Your task to perform on an android device: turn on translation in the chrome app Image 0: 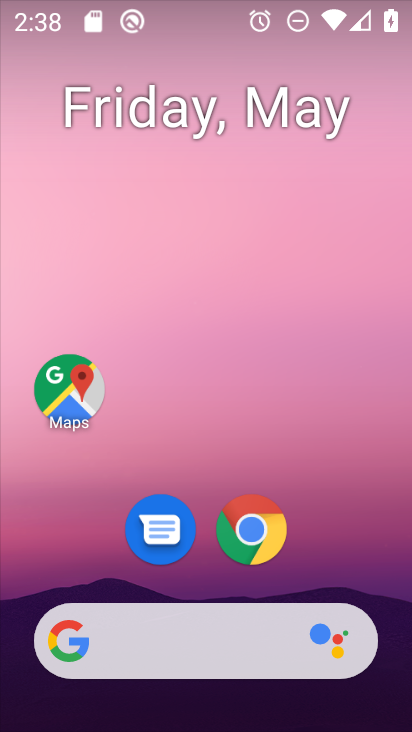
Step 0: click (245, 526)
Your task to perform on an android device: turn on translation in the chrome app Image 1: 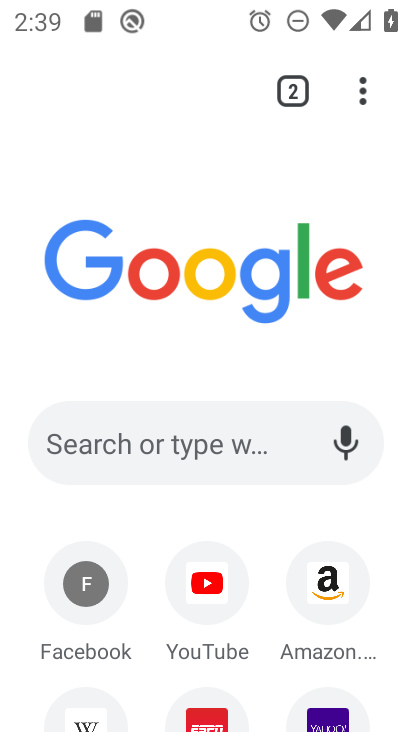
Step 1: click (362, 90)
Your task to perform on an android device: turn on translation in the chrome app Image 2: 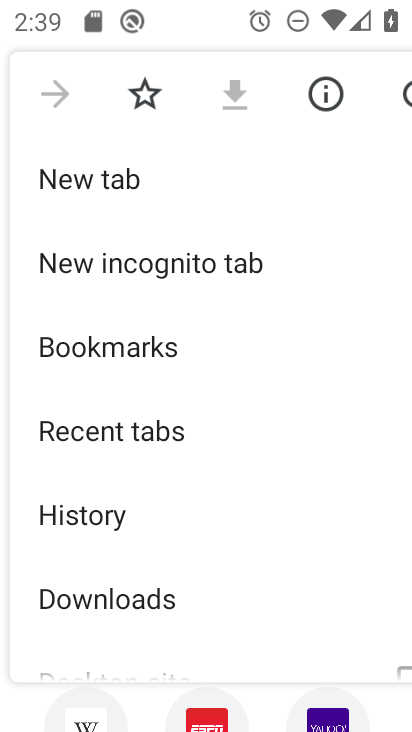
Step 2: drag from (248, 626) to (252, 407)
Your task to perform on an android device: turn on translation in the chrome app Image 3: 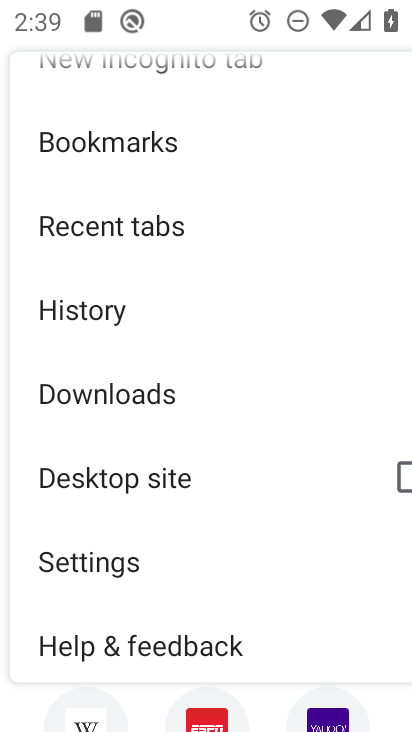
Step 3: click (100, 565)
Your task to perform on an android device: turn on translation in the chrome app Image 4: 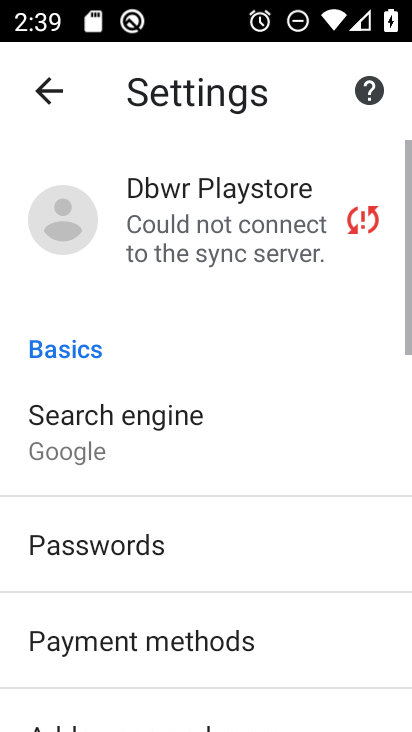
Step 4: drag from (277, 656) to (263, 349)
Your task to perform on an android device: turn on translation in the chrome app Image 5: 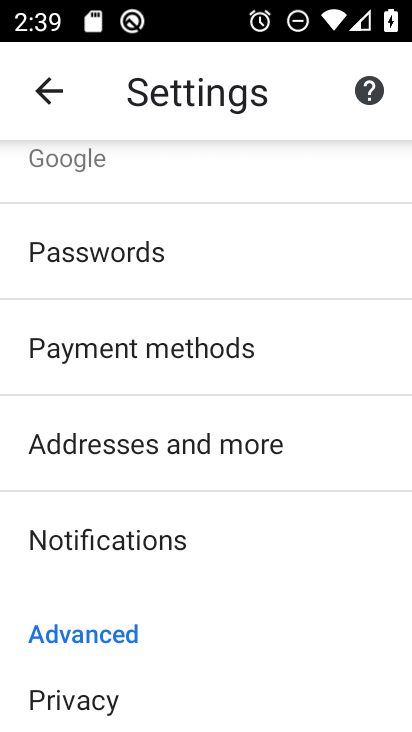
Step 5: drag from (242, 628) to (245, 439)
Your task to perform on an android device: turn on translation in the chrome app Image 6: 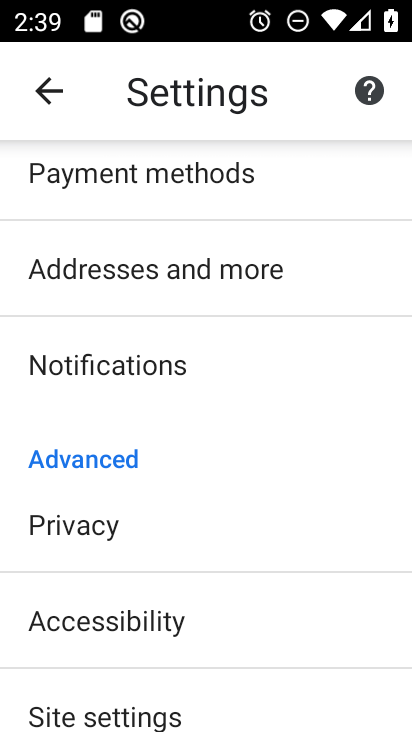
Step 6: drag from (233, 693) to (230, 485)
Your task to perform on an android device: turn on translation in the chrome app Image 7: 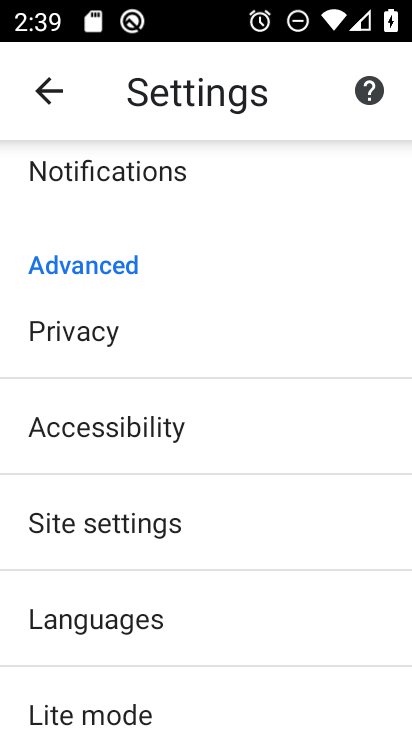
Step 7: drag from (226, 669) to (221, 481)
Your task to perform on an android device: turn on translation in the chrome app Image 8: 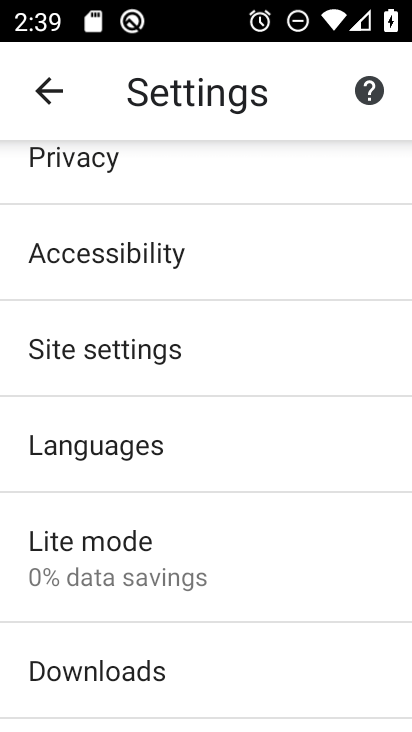
Step 8: click (110, 447)
Your task to perform on an android device: turn on translation in the chrome app Image 9: 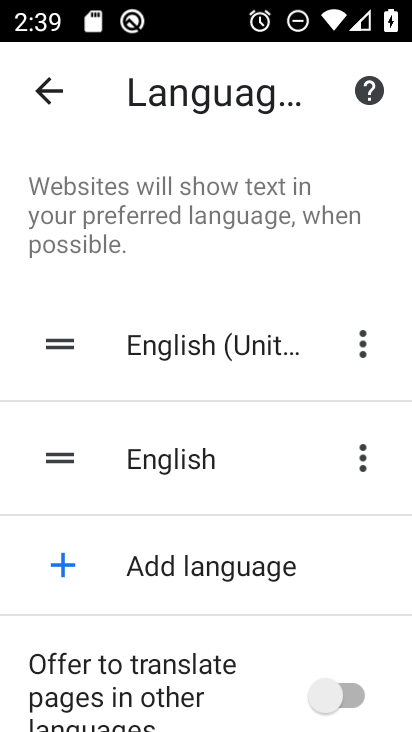
Step 9: click (349, 700)
Your task to perform on an android device: turn on translation in the chrome app Image 10: 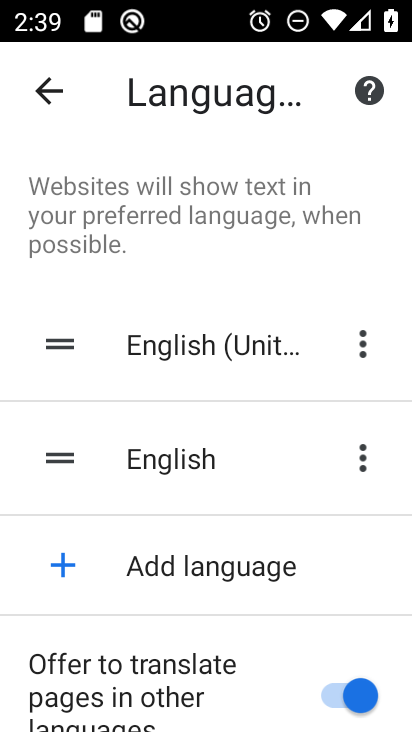
Step 10: task complete